Your task to perform on an android device: Turn on the flashlight Image 0: 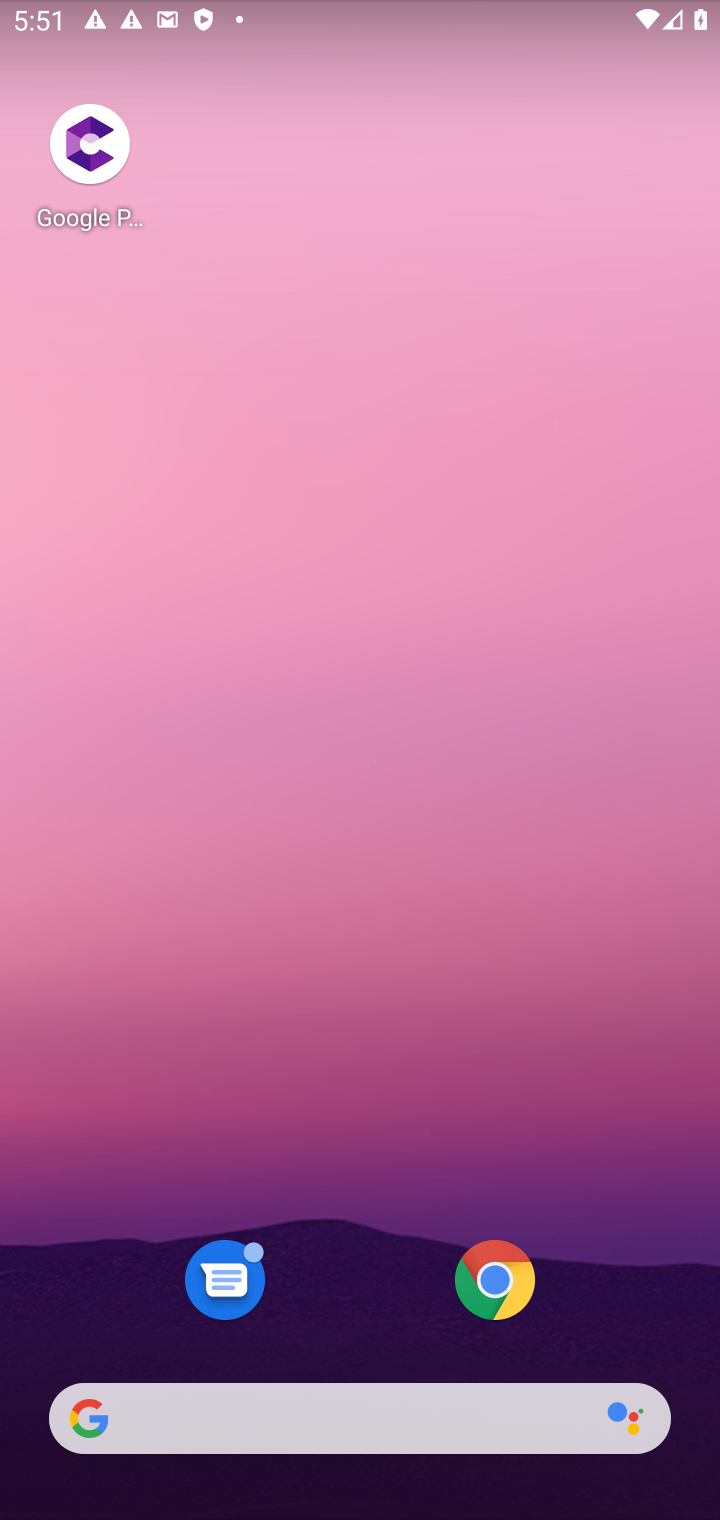
Step 0: drag from (331, 1281) to (357, 140)
Your task to perform on an android device: Turn on the flashlight Image 1: 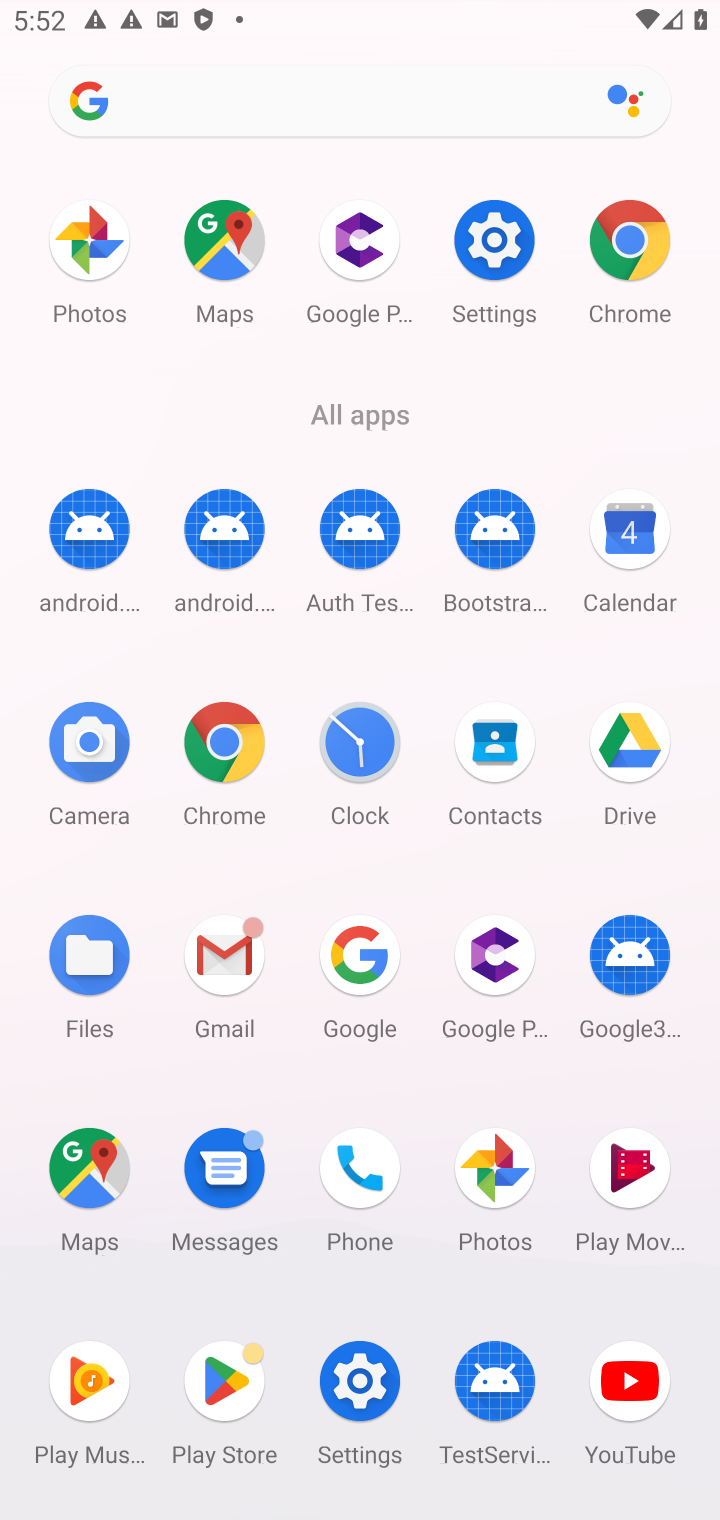
Step 1: click (479, 221)
Your task to perform on an android device: Turn on the flashlight Image 2: 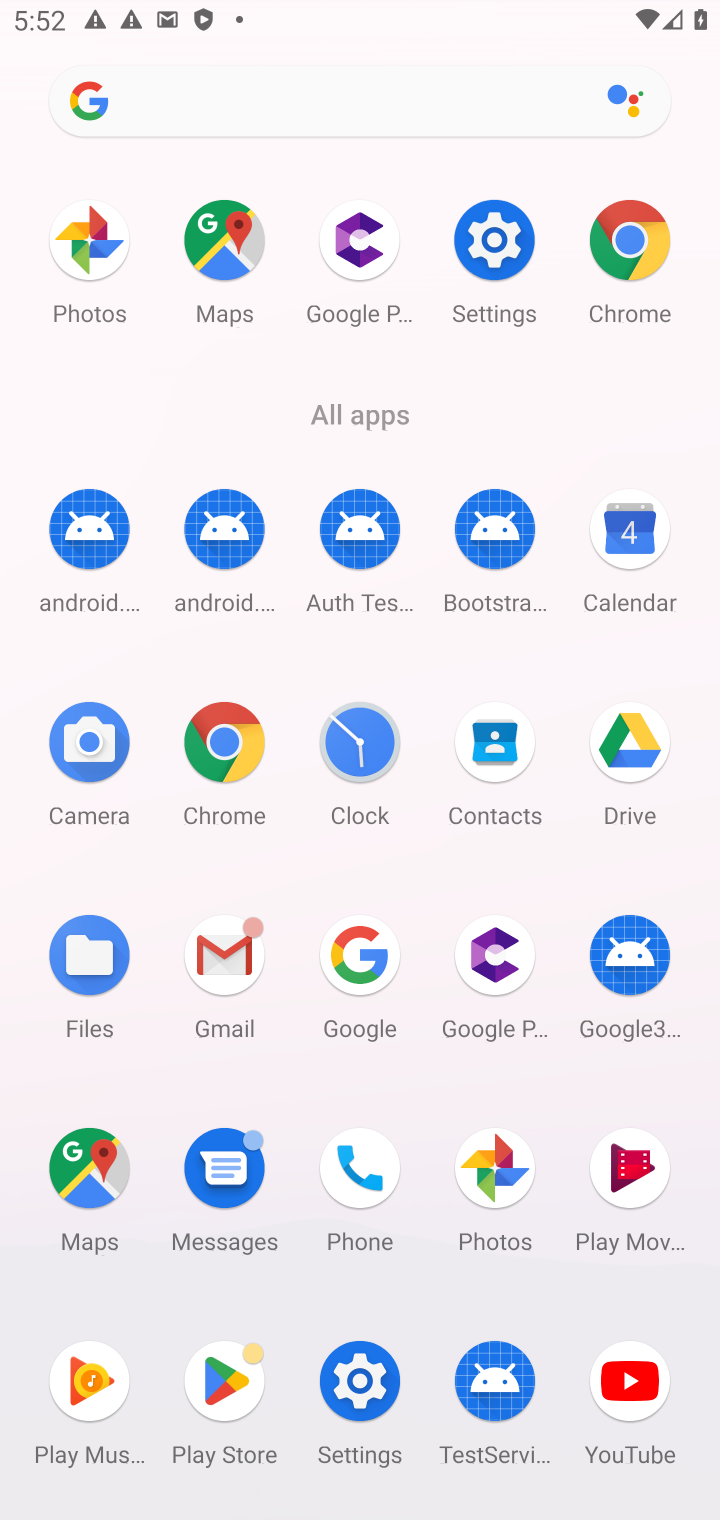
Step 2: task complete